Your task to perform on an android device: Go to ESPN.com Image 0: 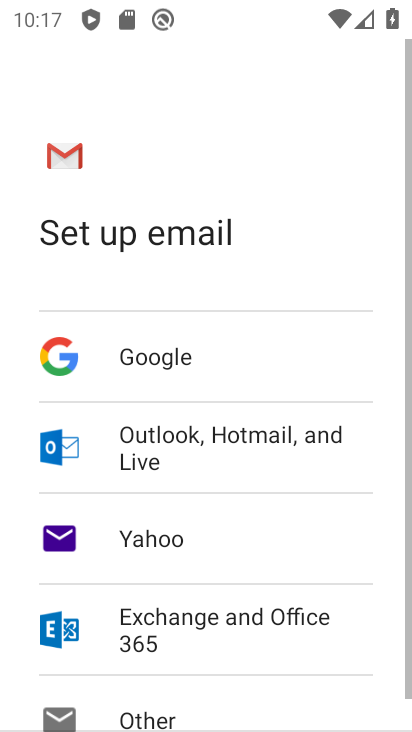
Step 0: press back button
Your task to perform on an android device: Go to ESPN.com Image 1: 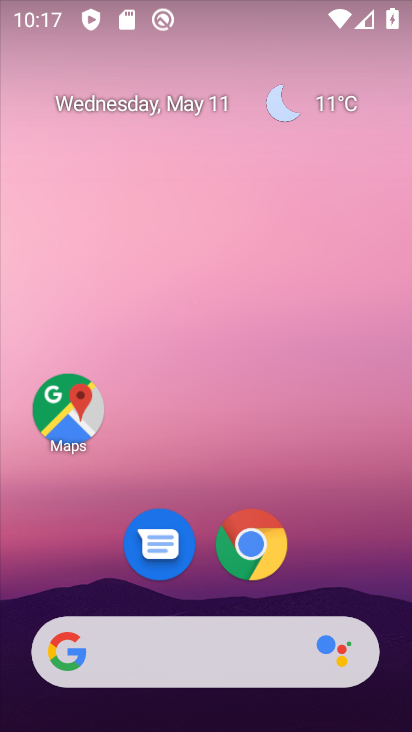
Step 1: click (251, 548)
Your task to perform on an android device: Go to ESPN.com Image 2: 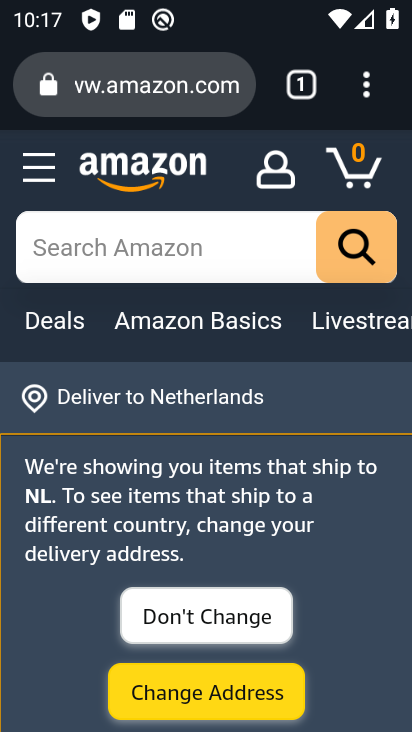
Step 2: click (302, 77)
Your task to perform on an android device: Go to ESPN.com Image 3: 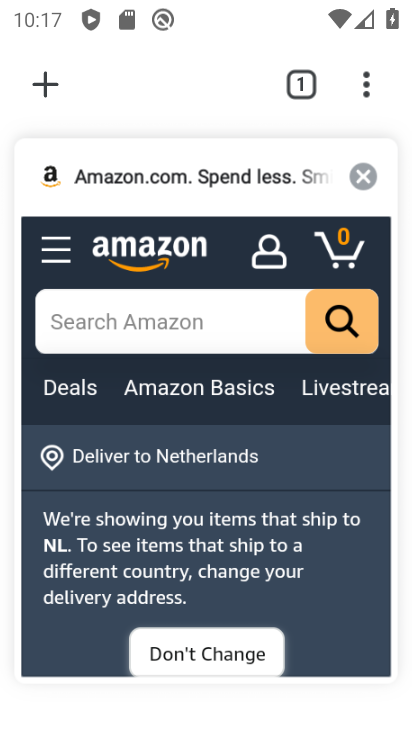
Step 3: click (50, 77)
Your task to perform on an android device: Go to ESPN.com Image 4: 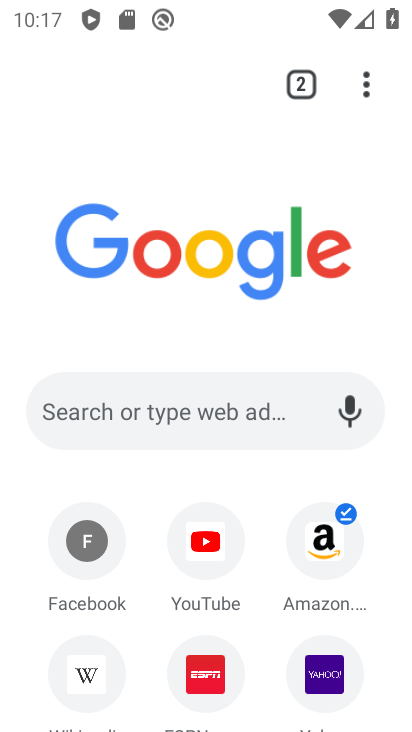
Step 4: type "espn"
Your task to perform on an android device: Go to ESPN.com Image 5: 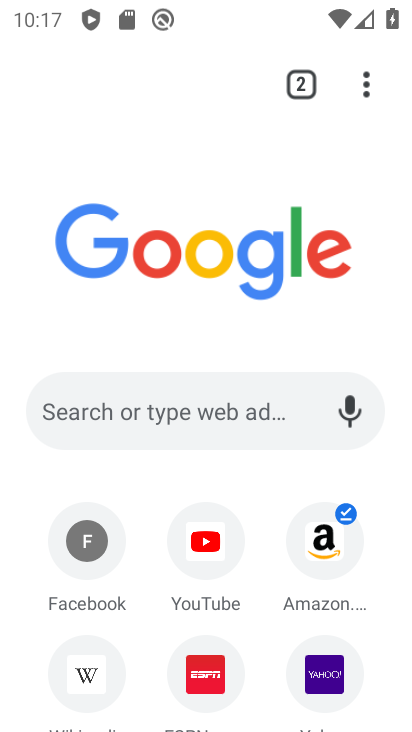
Step 5: click (187, 674)
Your task to perform on an android device: Go to ESPN.com Image 6: 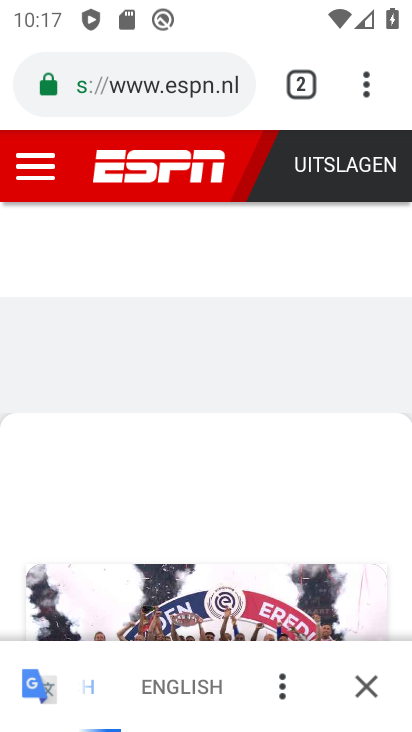
Step 6: task complete